Your task to perform on an android device: Go to Maps Image 0: 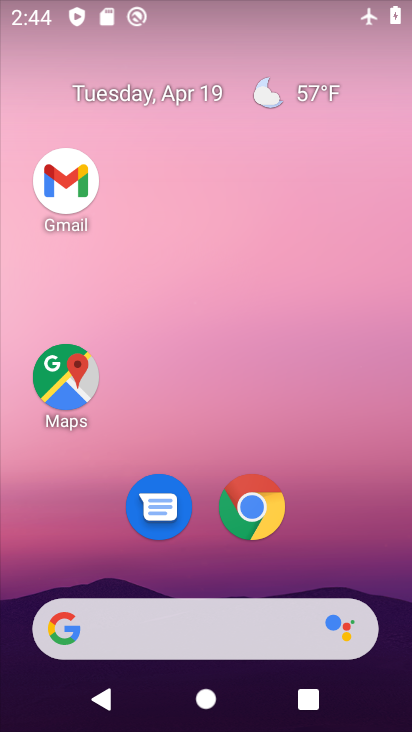
Step 0: click (78, 196)
Your task to perform on an android device: Go to Maps Image 1: 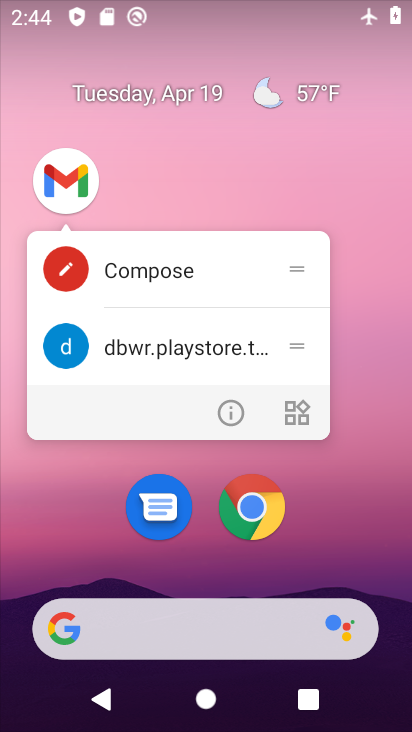
Step 1: click (88, 198)
Your task to perform on an android device: Go to Maps Image 2: 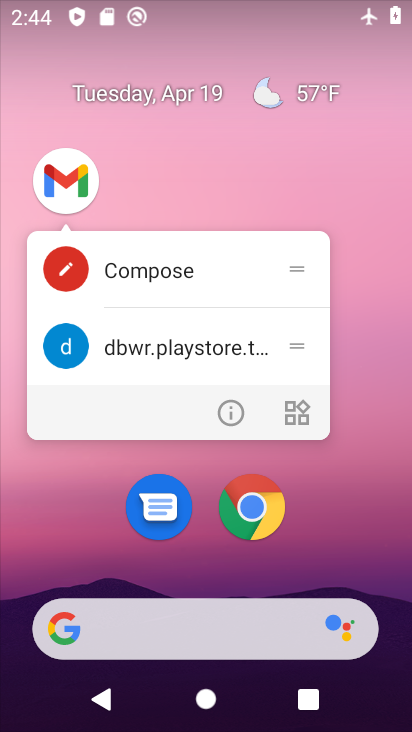
Step 2: click (78, 184)
Your task to perform on an android device: Go to Maps Image 3: 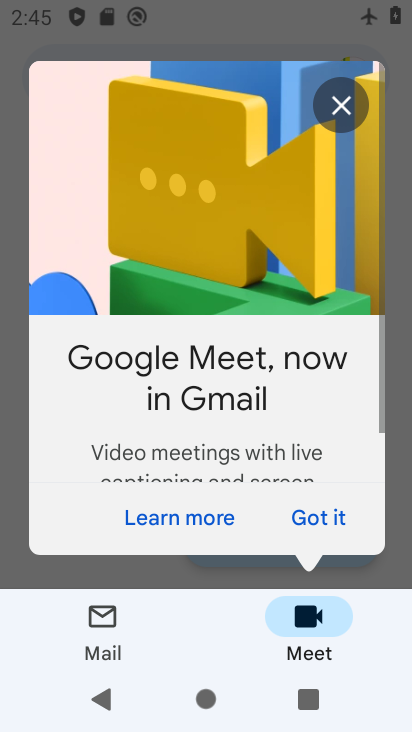
Step 3: task complete